Your task to perform on an android device: toggle wifi Image 0: 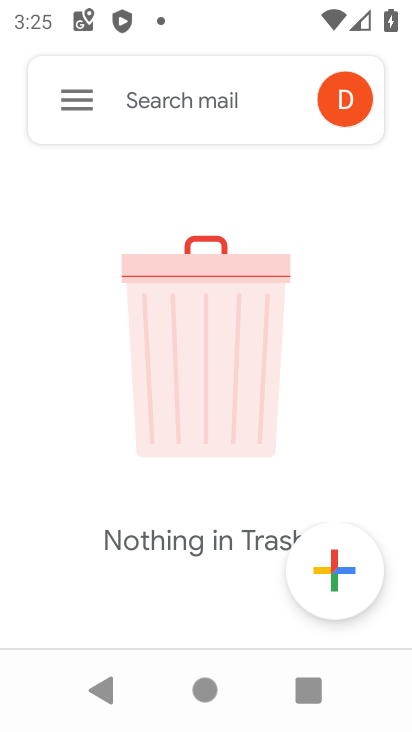
Step 0: press home button
Your task to perform on an android device: toggle wifi Image 1: 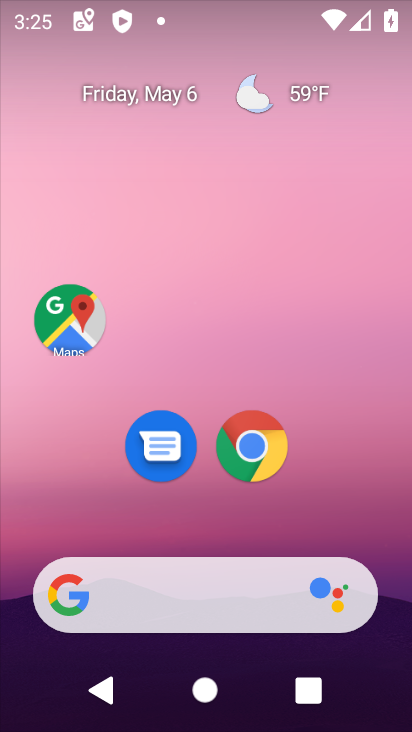
Step 1: drag from (337, 517) to (348, 119)
Your task to perform on an android device: toggle wifi Image 2: 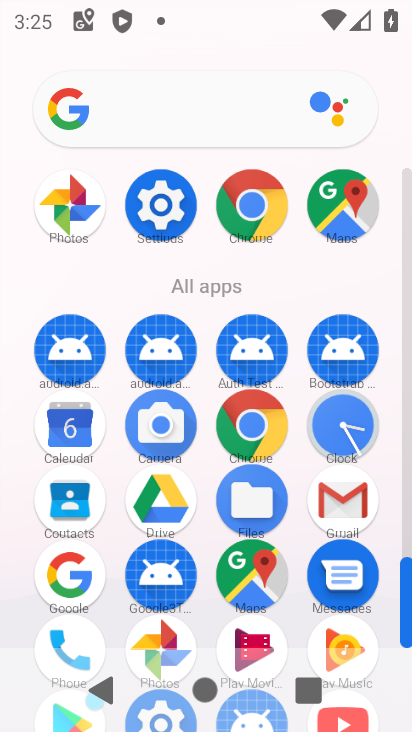
Step 2: click (152, 219)
Your task to perform on an android device: toggle wifi Image 3: 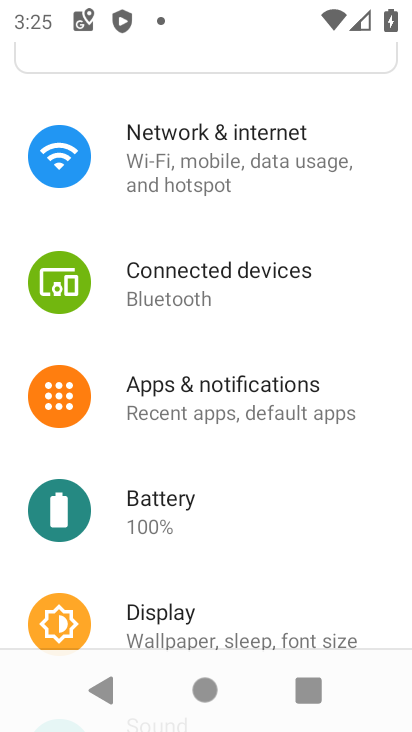
Step 3: click (227, 179)
Your task to perform on an android device: toggle wifi Image 4: 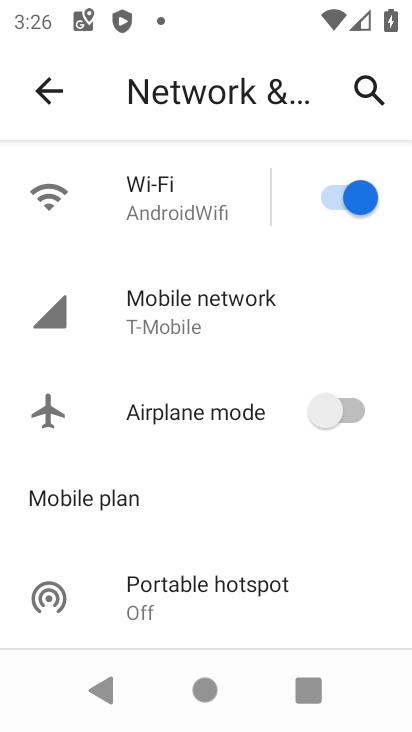
Step 4: click (350, 201)
Your task to perform on an android device: toggle wifi Image 5: 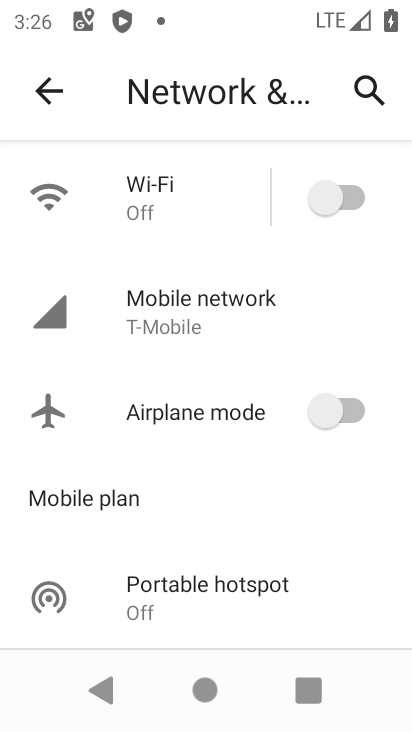
Step 5: task complete